Your task to perform on an android device: see creations saved in the google photos Image 0: 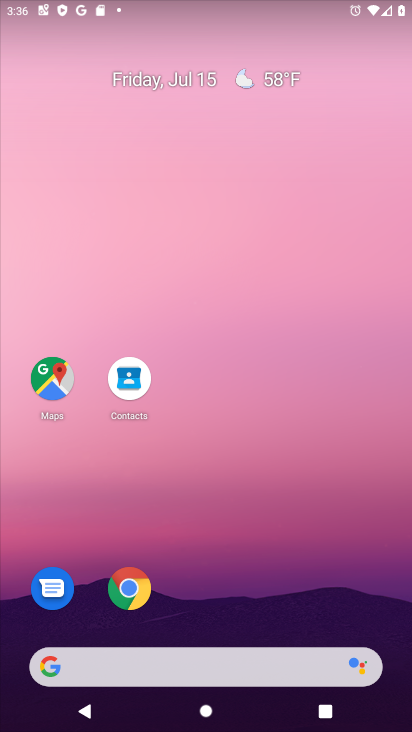
Step 0: click (268, 615)
Your task to perform on an android device: see creations saved in the google photos Image 1: 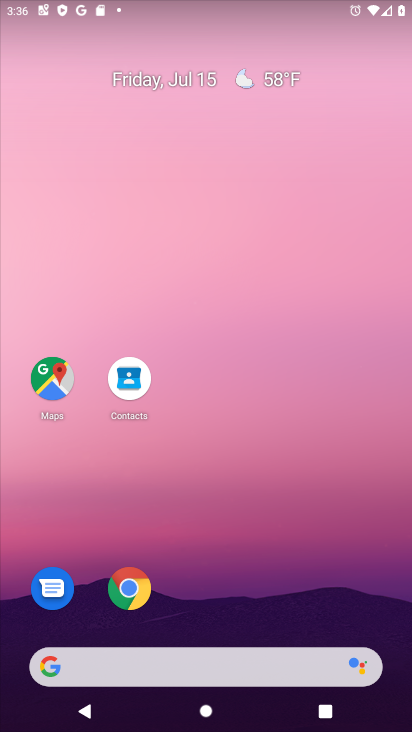
Step 1: drag from (268, 615) to (311, 81)
Your task to perform on an android device: see creations saved in the google photos Image 2: 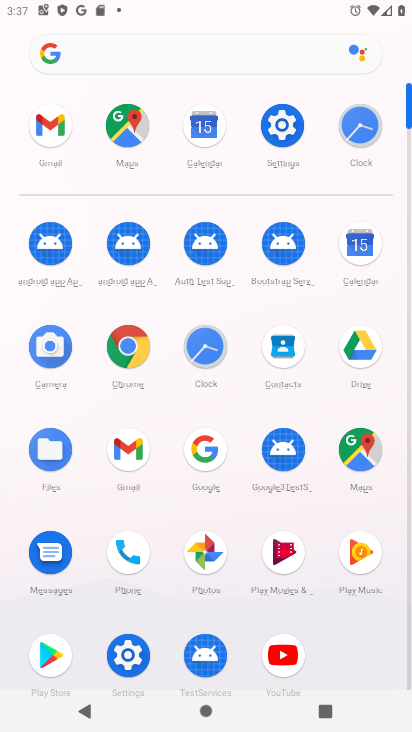
Step 2: click (216, 543)
Your task to perform on an android device: see creations saved in the google photos Image 3: 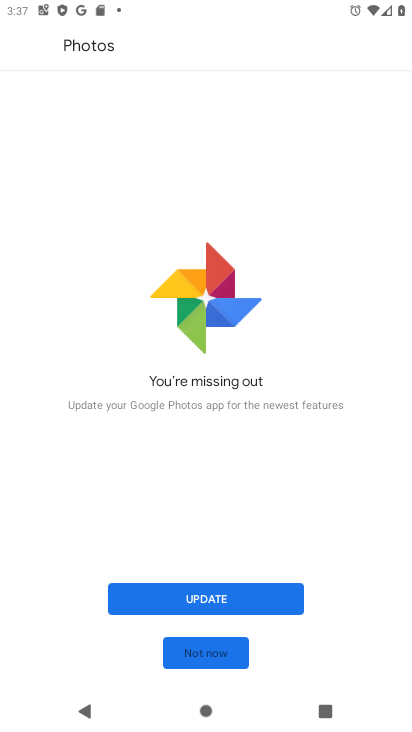
Step 3: click (195, 593)
Your task to perform on an android device: see creations saved in the google photos Image 4: 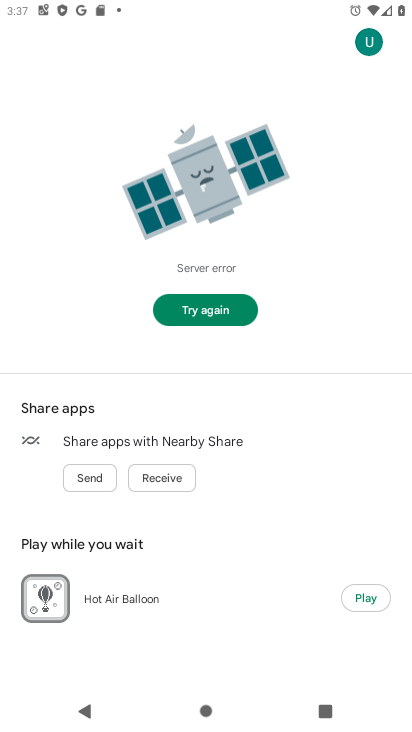
Step 4: click (210, 313)
Your task to perform on an android device: see creations saved in the google photos Image 5: 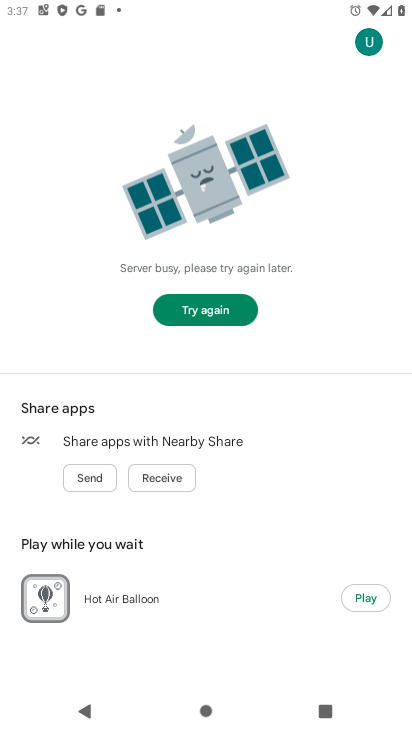
Step 5: click (210, 313)
Your task to perform on an android device: see creations saved in the google photos Image 6: 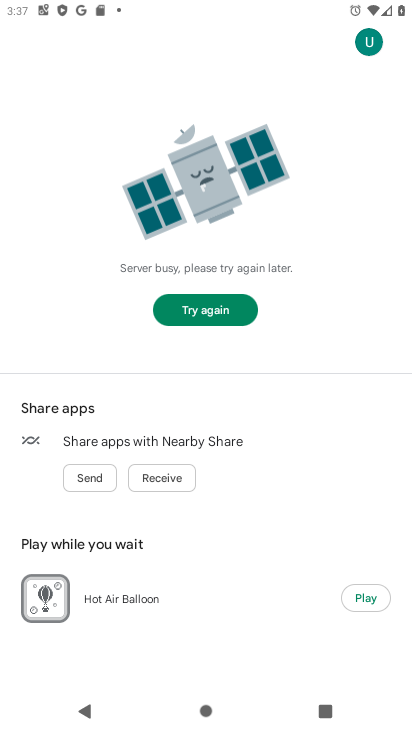
Step 6: click (210, 313)
Your task to perform on an android device: see creations saved in the google photos Image 7: 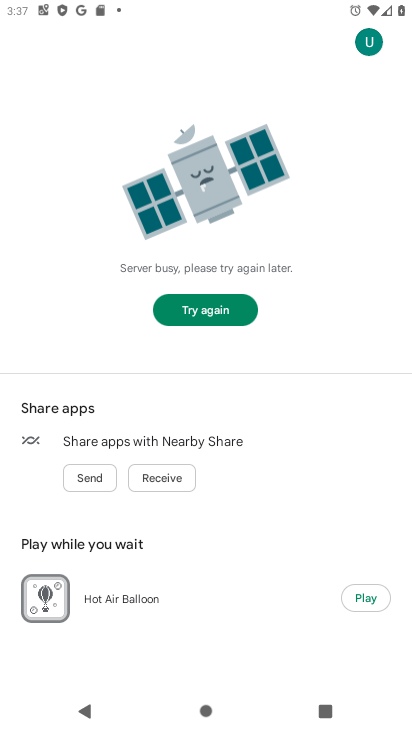
Step 7: press home button
Your task to perform on an android device: see creations saved in the google photos Image 8: 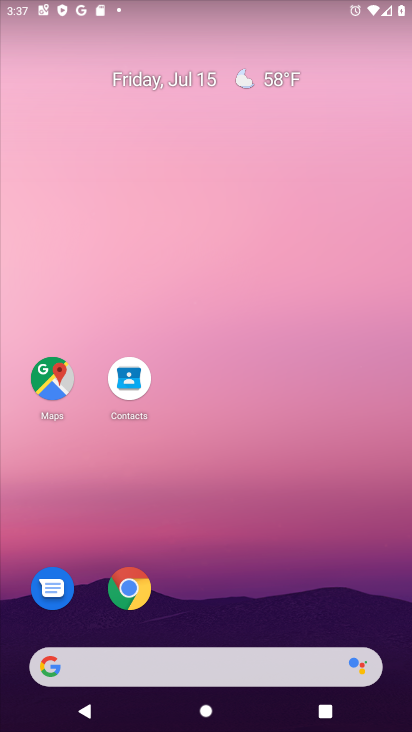
Step 8: drag from (242, 617) to (280, 218)
Your task to perform on an android device: see creations saved in the google photos Image 9: 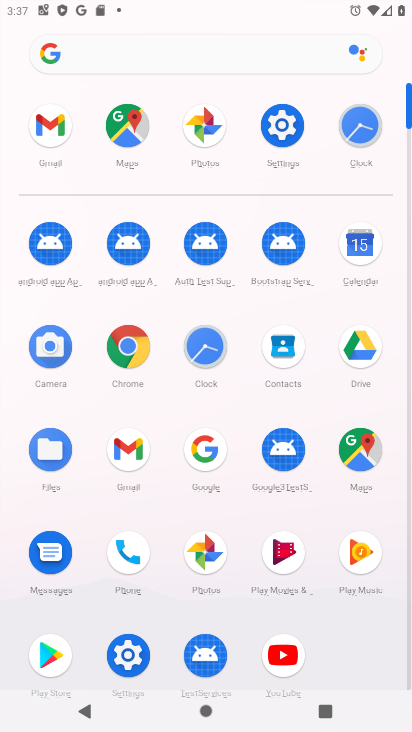
Step 9: click (206, 155)
Your task to perform on an android device: see creations saved in the google photos Image 10: 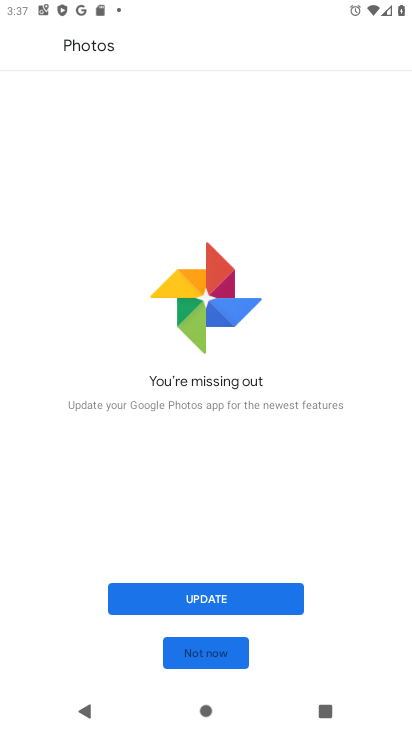
Step 10: click (198, 645)
Your task to perform on an android device: see creations saved in the google photos Image 11: 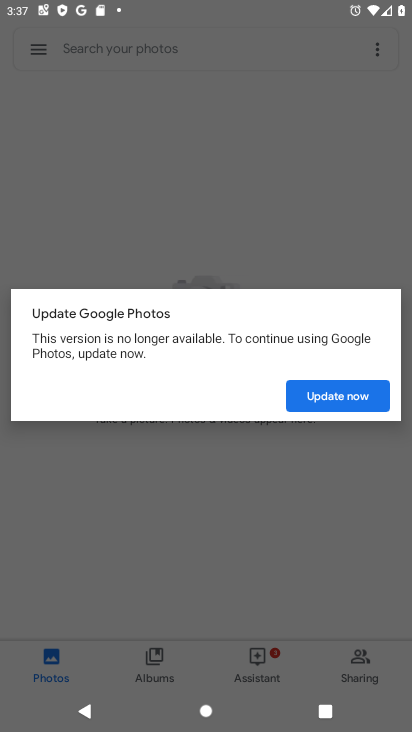
Step 11: click (308, 465)
Your task to perform on an android device: see creations saved in the google photos Image 12: 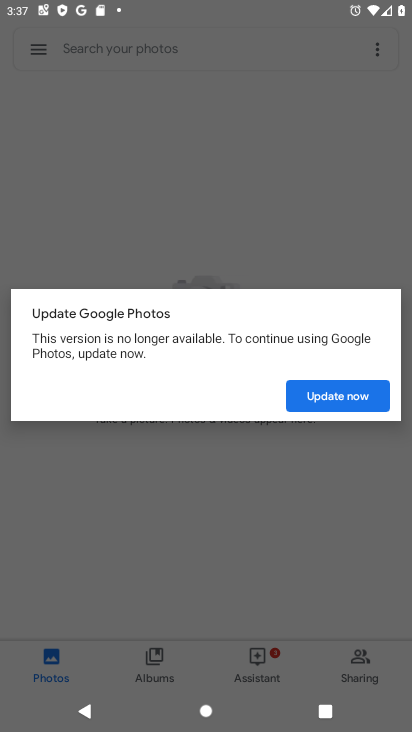
Step 12: task complete